Your task to perform on an android device: Open my contact list Image 0: 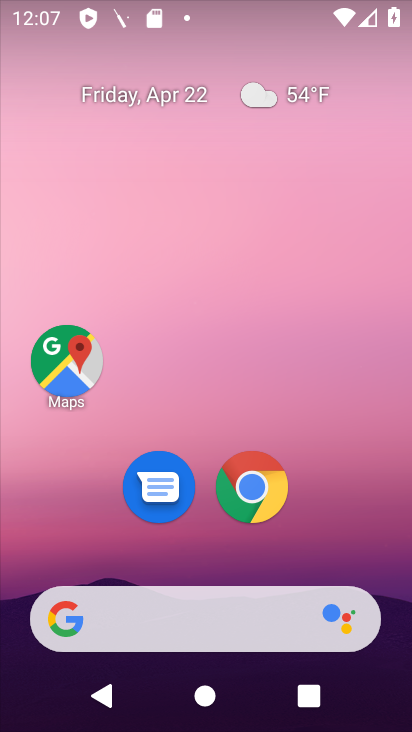
Step 0: drag from (314, 462) to (334, 35)
Your task to perform on an android device: Open my contact list Image 1: 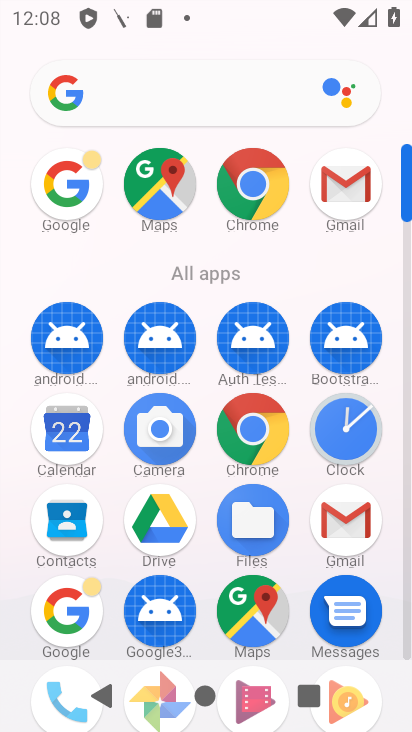
Step 1: click (76, 516)
Your task to perform on an android device: Open my contact list Image 2: 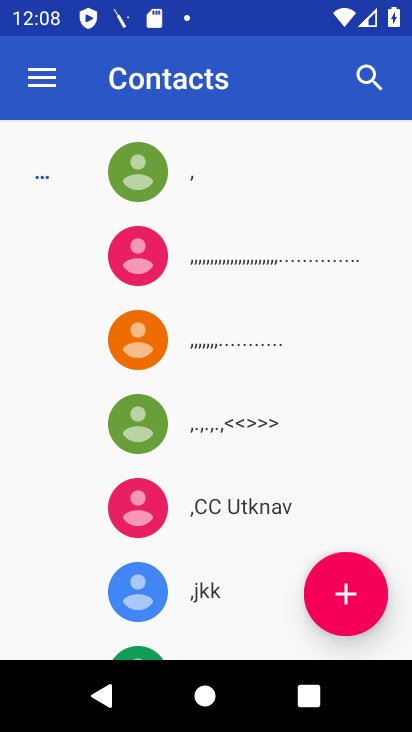
Step 2: task complete